Your task to perform on an android device: turn off picture-in-picture Image 0: 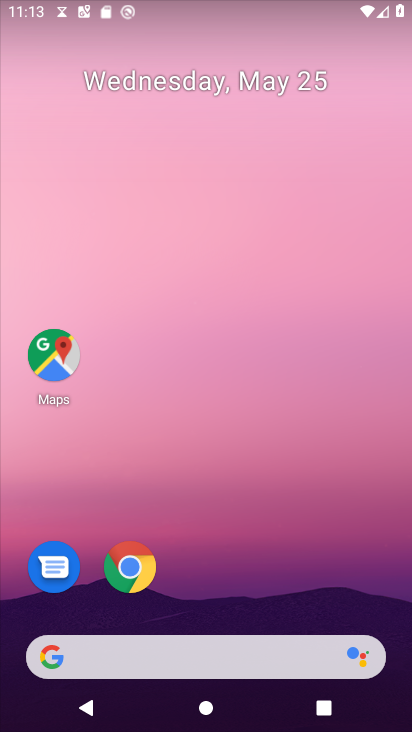
Step 0: drag from (255, 480) to (269, 30)
Your task to perform on an android device: turn off picture-in-picture Image 1: 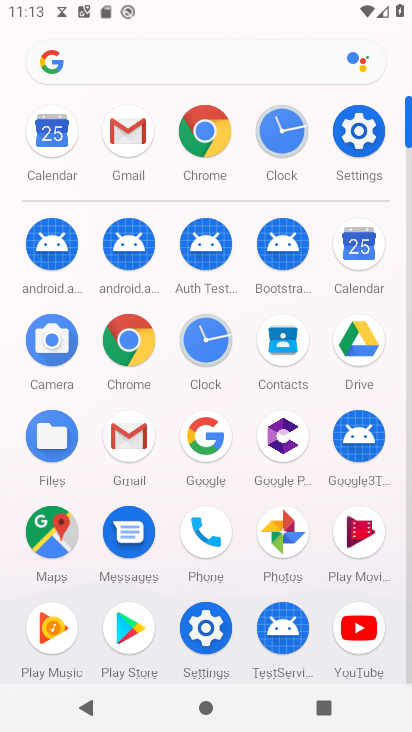
Step 1: click (362, 132)
Your task to perform on an android device: turn off picture-in-picture Image 2: 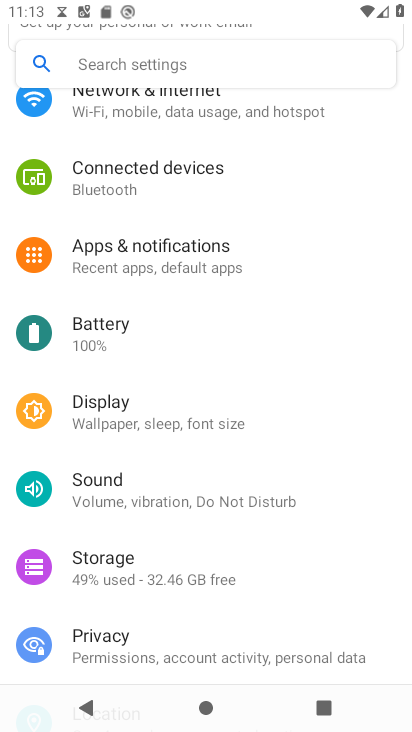
Step 2: click (186, 266)
Your task to perform on an android device: turn off picture-in-picture Image 3: 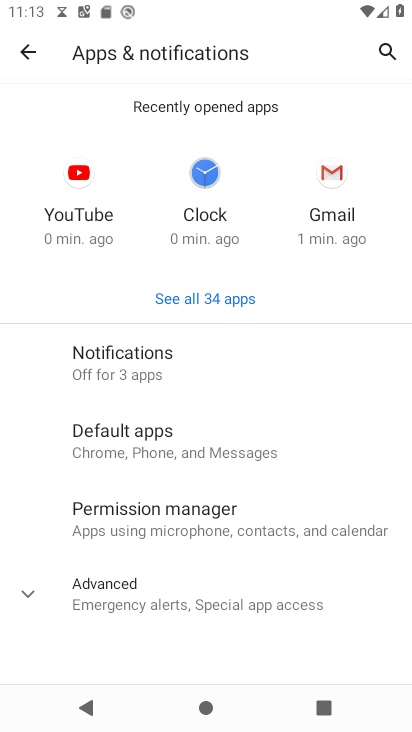
Step 3: click (148, 364)
Your task to perform on an android device: turn off picture-in-picture Image 4: 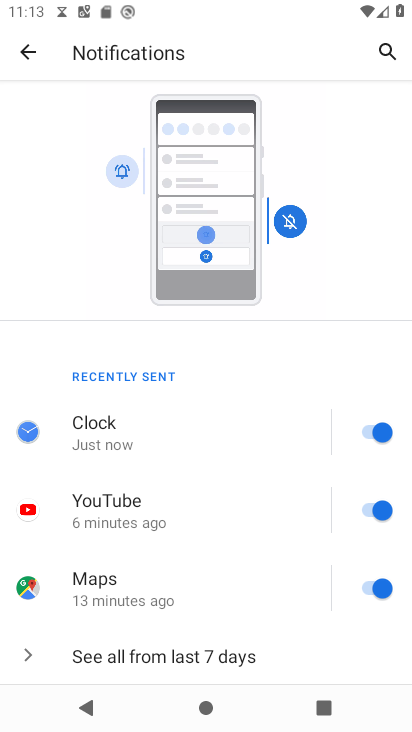
Step 4: click (27, 47)
Your task to perform on an android device: turn off picture-in-picture Image 5: 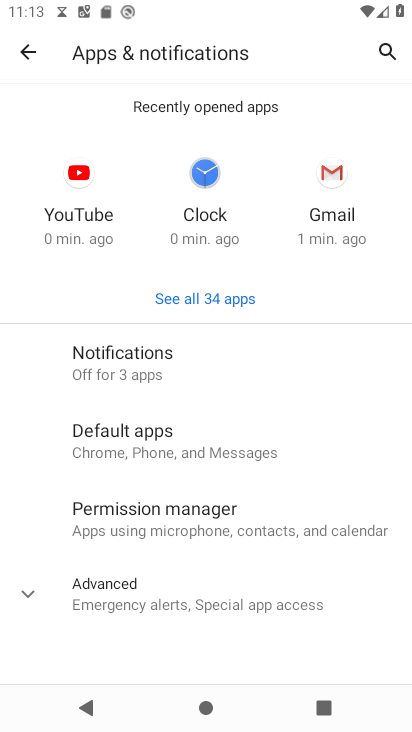
Step 5: click (248, 607)
Your task to perform on an android device: turn off picture-in-picture Image 6: 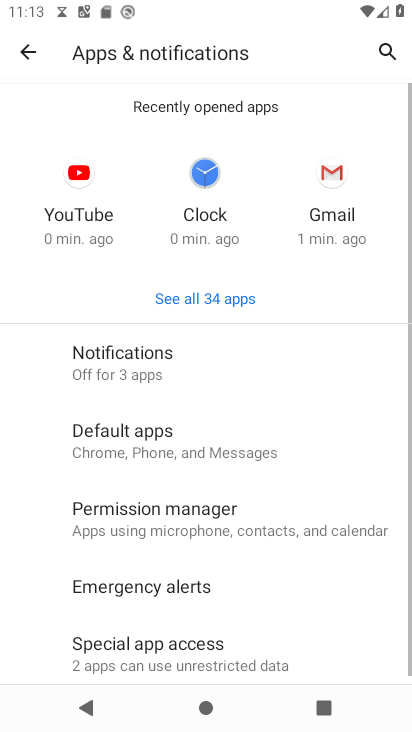
Step 6: drag from (248, 607) to (284, 327)
Your task to perform on an android device: turn off picture-in-picture Image 7: 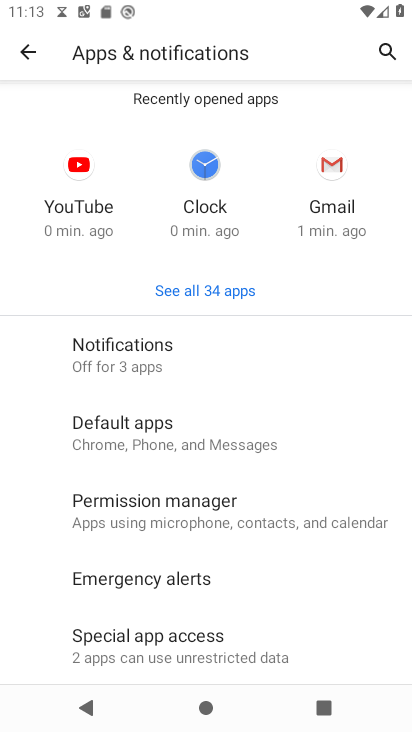
Step 7: click (202, 651)
Your task to perform on an android device: turn off picture-in-picture Image 8: 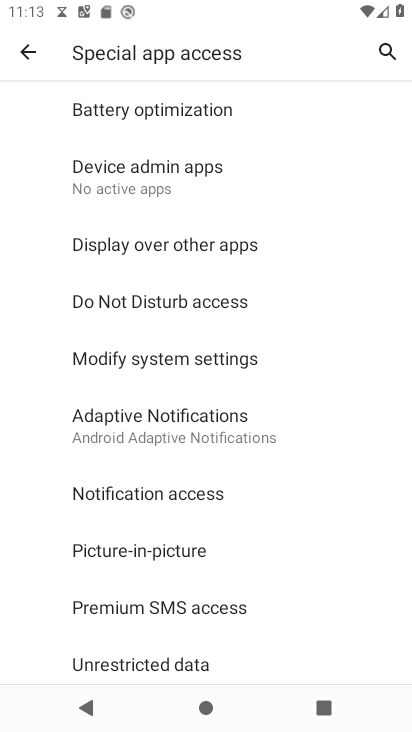
Step 8: click (194, 543)
Your task to perform on an android device: turn off picture-in-picture Image 9: 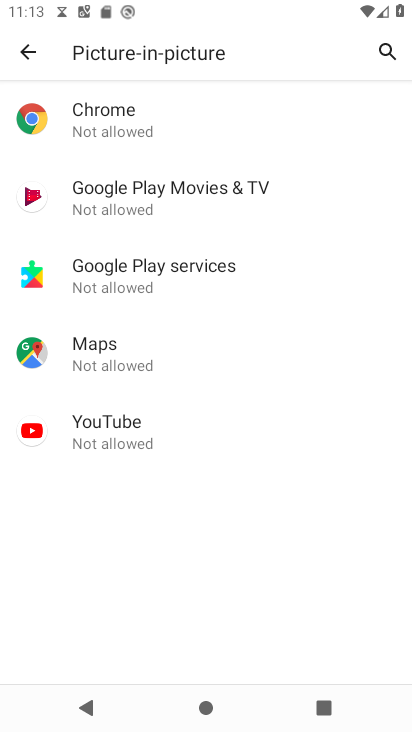
Step 9: task complete